Your task to perform on an android device: What's the weather going to be this weekend? Image 0: 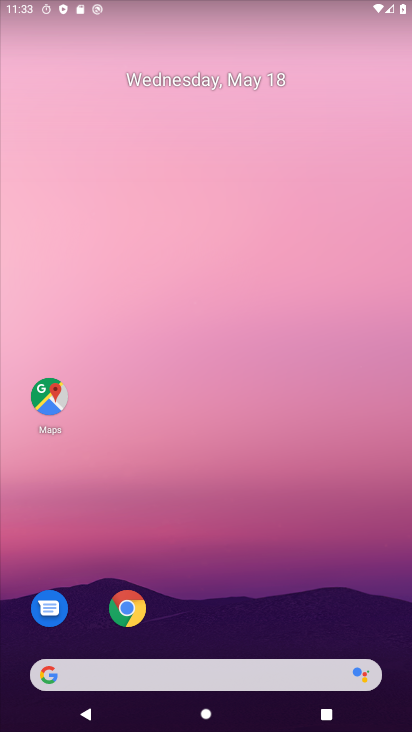
Step 0: drag from (240, 630) to (212, 22)
Your task to perform on an android device: What's the weather going to be this weekend? Image 1: 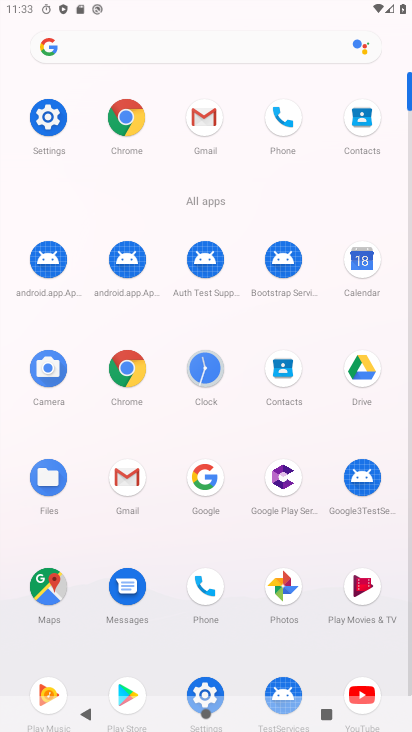
Step 1: click (366, 264)
Your task to perform on an android device: What's the weather going to be this weekend? Image 2: 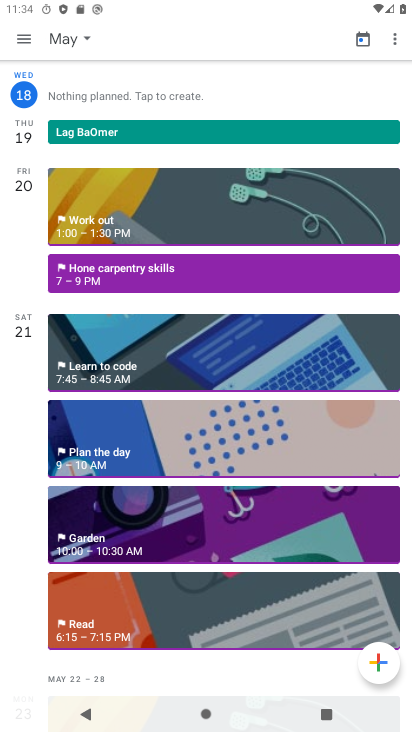
Step 2: click (23, 40)
Your task to perform on an android device: What's the weather going to be this weekend? Image 3: 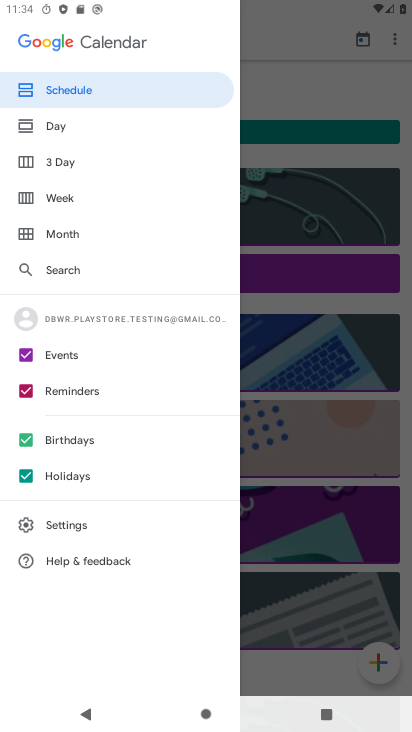
Step 3: press home button
Your task to perform on an android device: What's the weather going to be this weekend? Image 4: 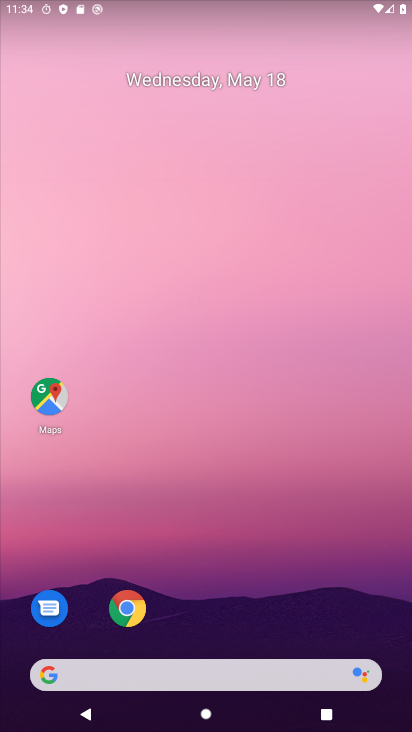
Step 4: click (132, 613)
Your task to perform on an android device: What's the weather going to be this weekend? Image 5: 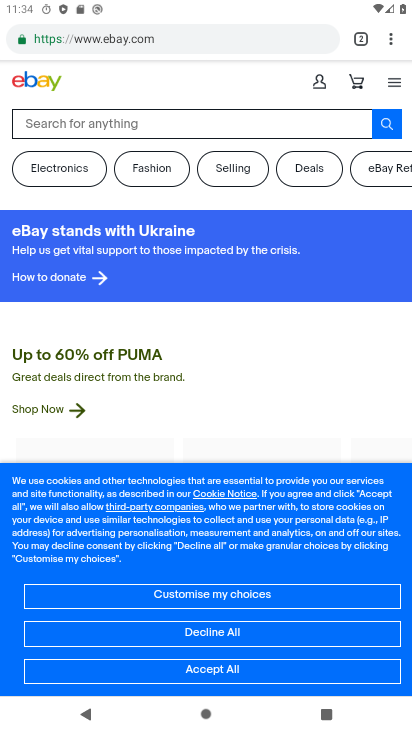
Step 5: click (270, 36)
Your task to perform on an android device: What's the weather going to be this weekend? Image 6: 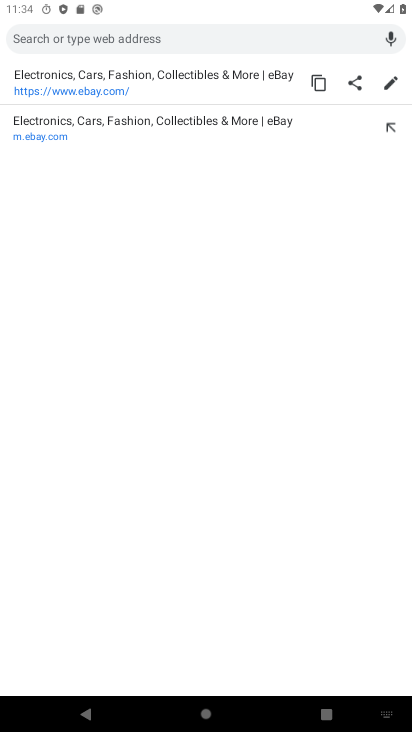
Step 6: type "What's the weather going to be this weekend?"
Your task to perform on an android device: What's the weather going to be this weekend? Image 7: 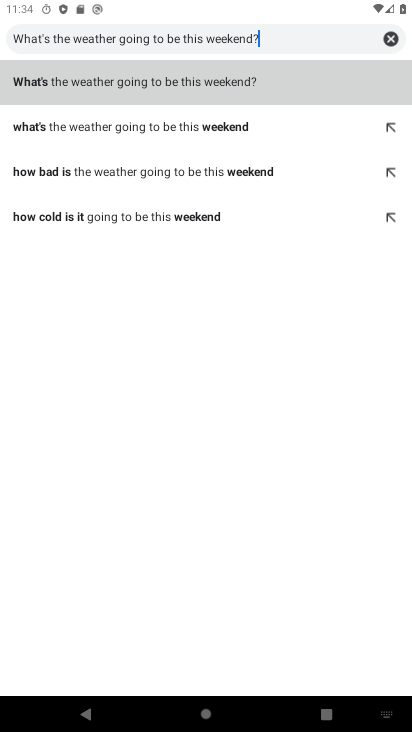
Step 7: click (302, 77)
Your task to perform on an android device: What's the weather going to be this weekend? Image 8: 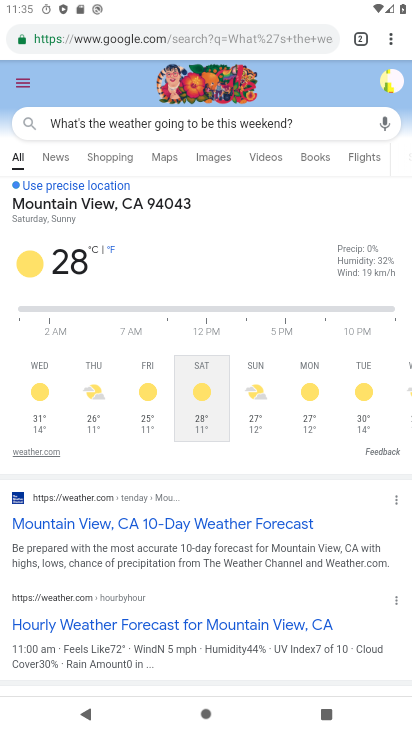
Step 8: task complete